Your task to perform on an android device: Go to internet settings Image 0: 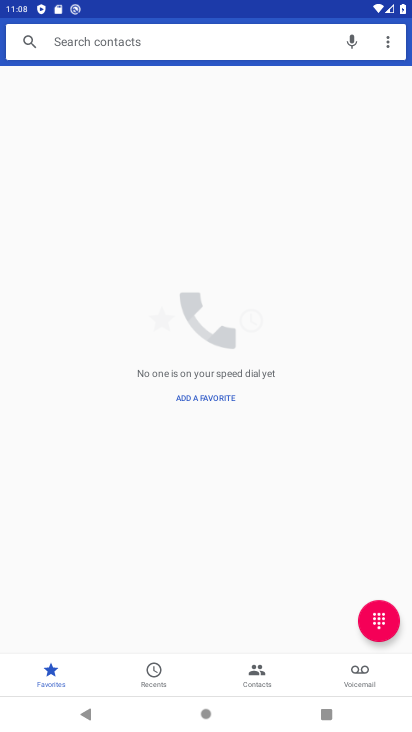
Step 0: press home button
Your task to perform on an android device: Go to internet settings Image 1: 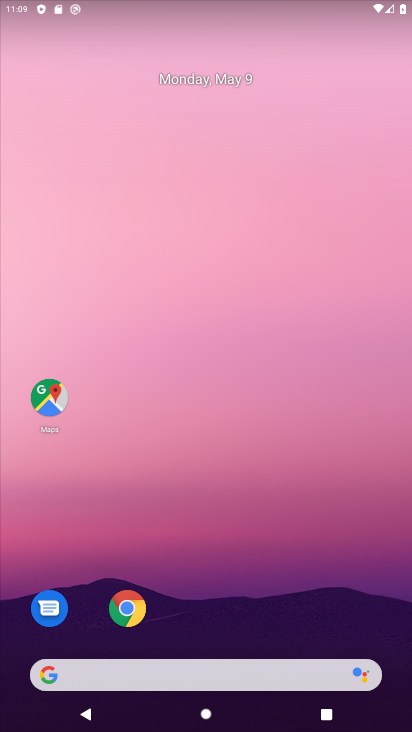
Step 1: drag from (25, 671) to (245, 96)
Your task to perform on an android device: Go to internet settings Image 2: 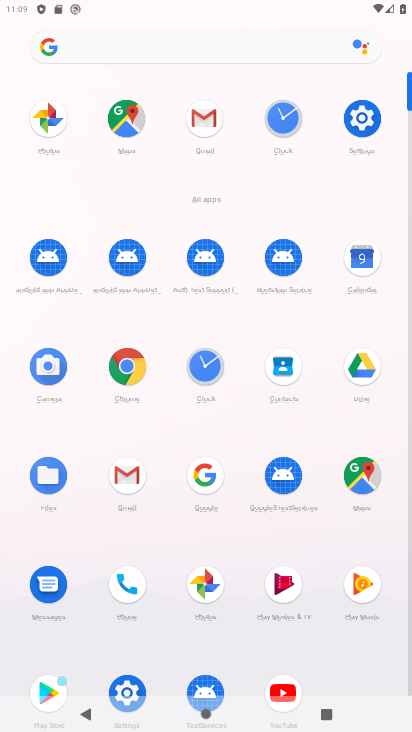
Step 2: click (346, 121)
Your task to perform on an android device: Go to internet settings Image 3: 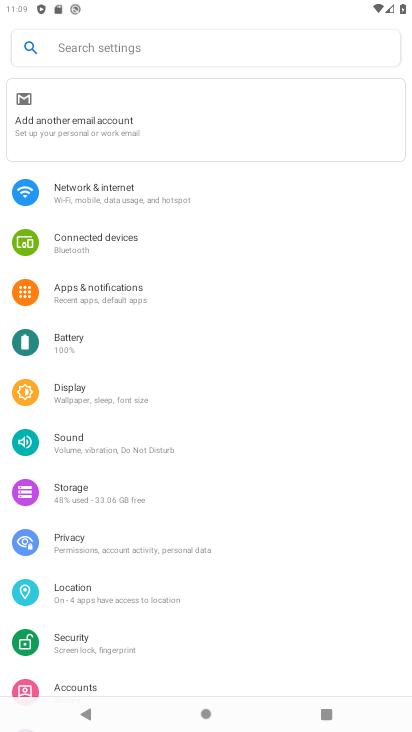
Step 3: click (145, 202)
Your task to perform on an android device: Go to internet settings Image 4: 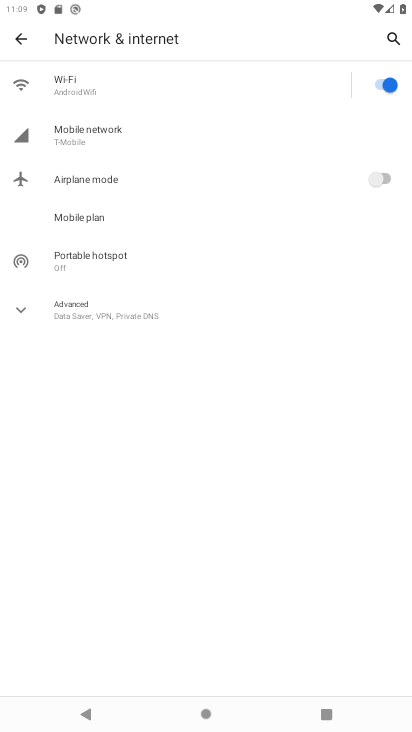
Step 4: click (144, 123)
Your task to perform on an android device: Go to internet settings Image 5: 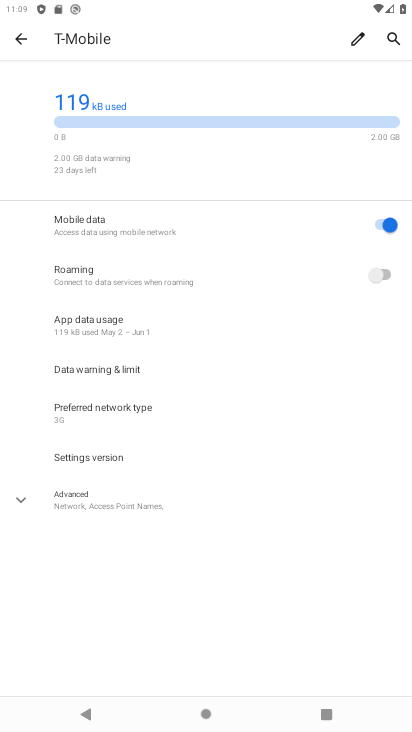
Step 5: task complete